Your task to perform on an android device: Is it going to rain tomorrow? Image 0: 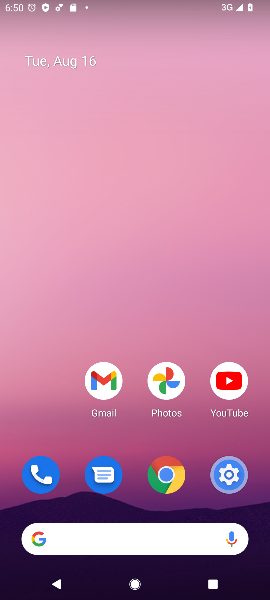
Step 0: drag from (136, 491) to (92, 65)
Your task to perform on an android device: Is it going to rain tomorrow? Image 1: 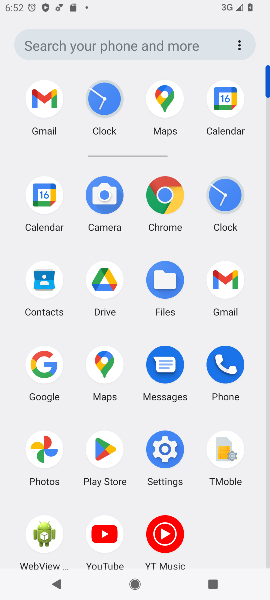
Step 1: click (35, 358)
Your task to perform on an android device: Is it going to rain tomorrow? Image 2: 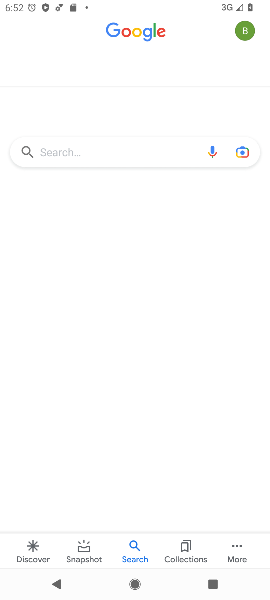
Step 2: click (119, 159)
Your task to perform on an android device: Is it going to rain tomorrow? Image 3: 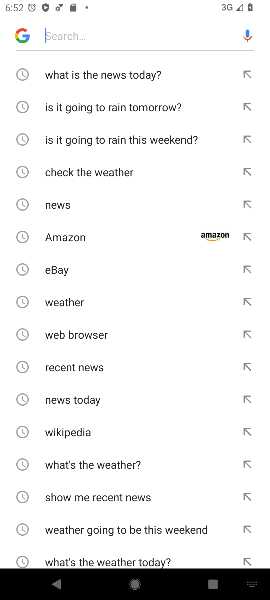
Step 3: click (158, 107)
Your task to perform on an android device: Is it going to rain tomorrow? Image 4: 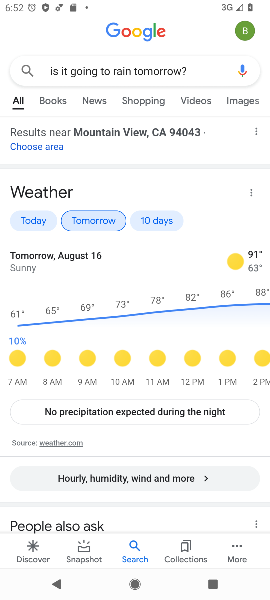
Step 4: task complete